Your task to perform on an android device: turn on wifi Image 0: 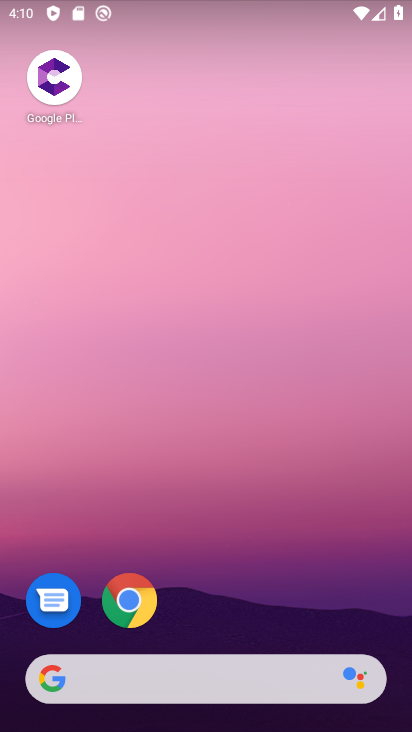
Step 0: drag from (397, 641) to (313, 41)
Your task to perform on an android device: turn on wifi Image 1: 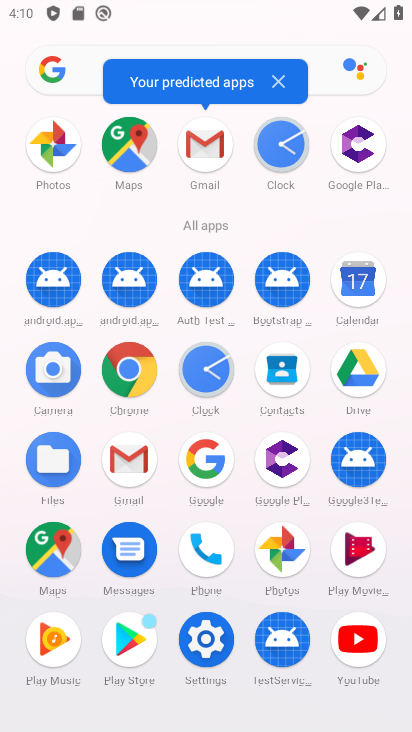
Step 1: click (206, 641)
Your task to perform on an android device: turn on wifi Image 2: 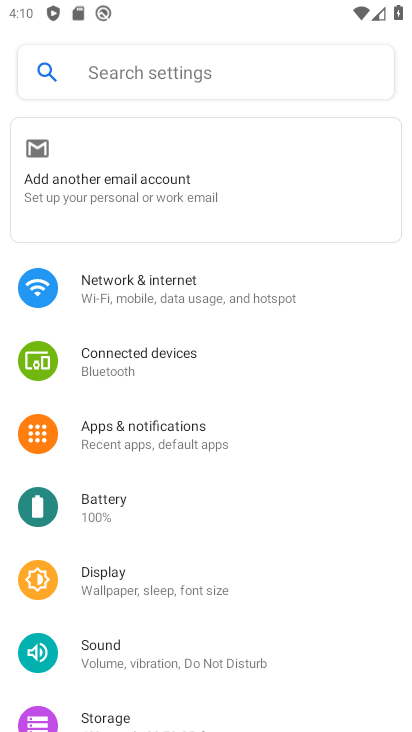
Step 2: click (206, 630)
Your task to perform on an android device: turn on wifi Image 3: 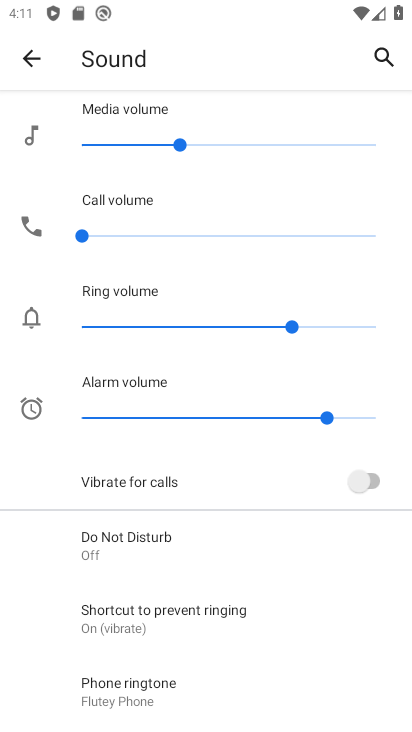
Step 3: press back button
Your task to perform on an android device: turn on wifi Image 4: 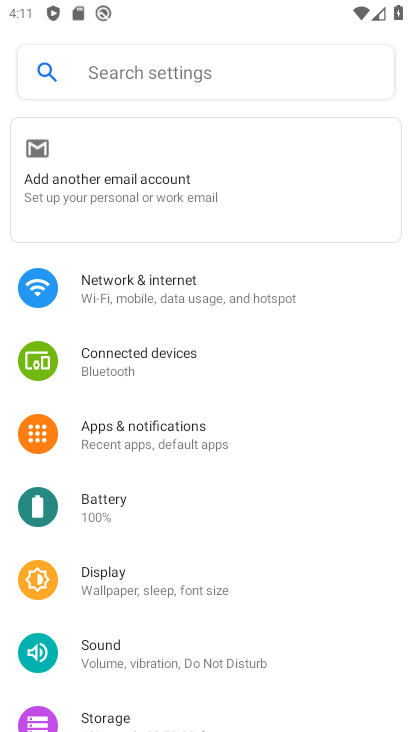
Step 4: click (105, 285)
Your task to perform on an android device: turn on wifi Image 5: 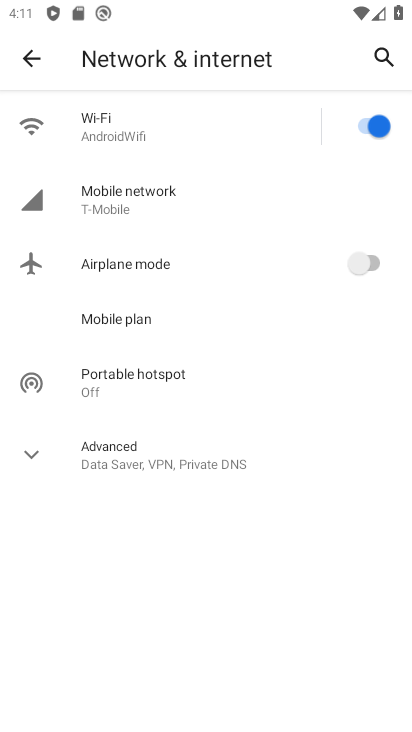
Step 5: task complete